Your task to perform on an android device: Search for the best 4K TV Image 0: 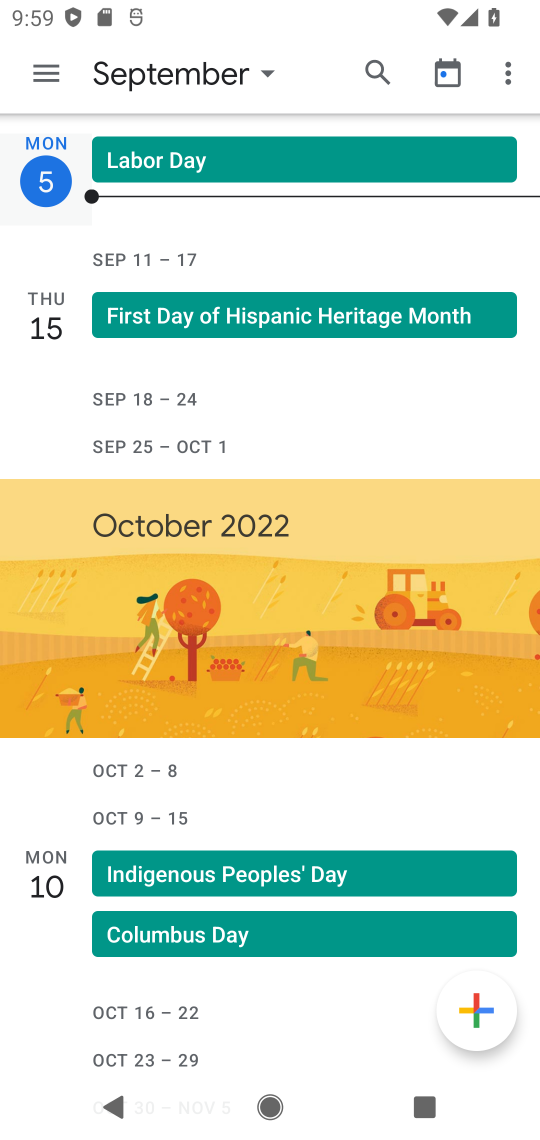
Step 0: press home button
Your task to perform on an android device: Search for the best 4K TV Image 1: 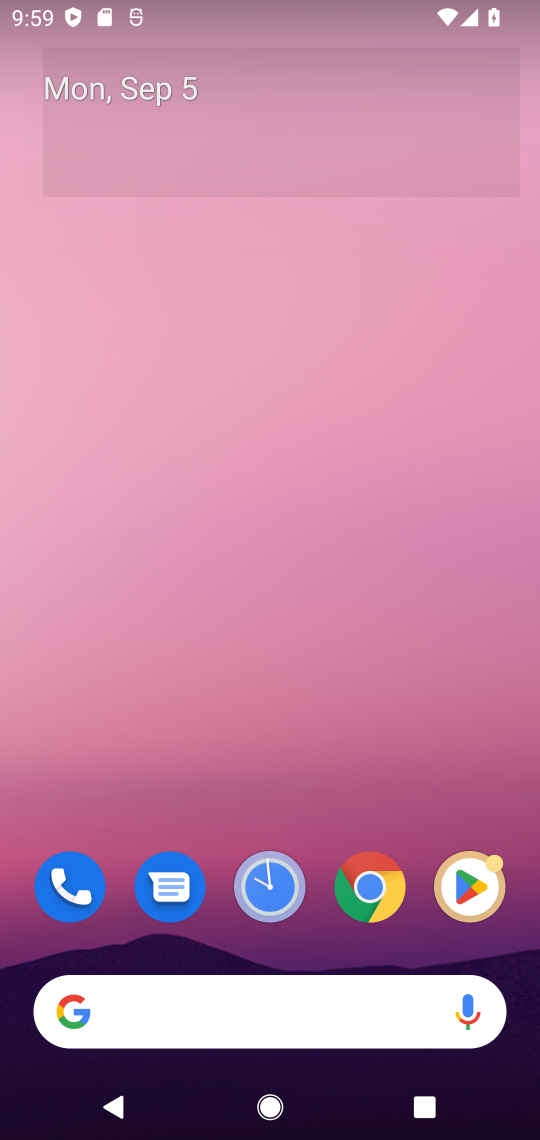
Step 1: click (360, 882)
Your task to perform on an android device: Search for the best 4K TV Image 2: 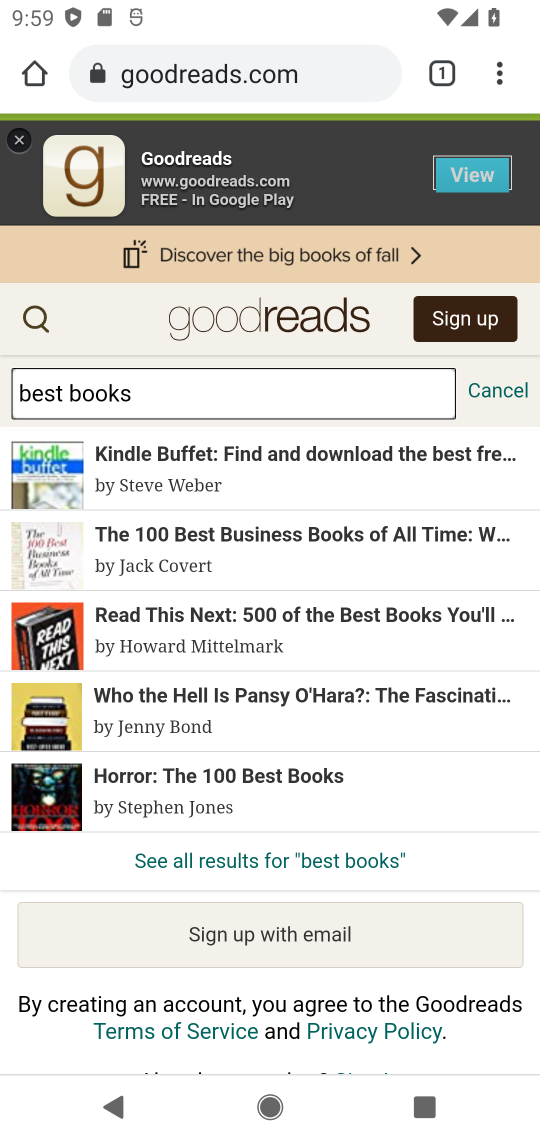
Step 2: click (212, 69)
Your task to perform on an android device: Search for the best 4K TV Image 3: 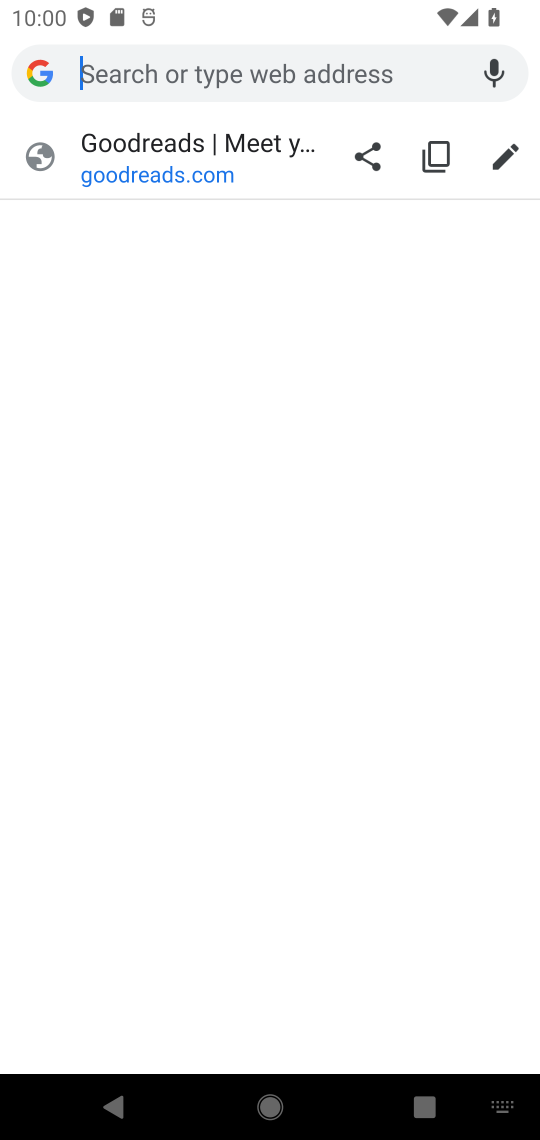
Step 3: type "the best 4K TV"
Your task to perform on an android device: Search for the best 4K TV Image 4: 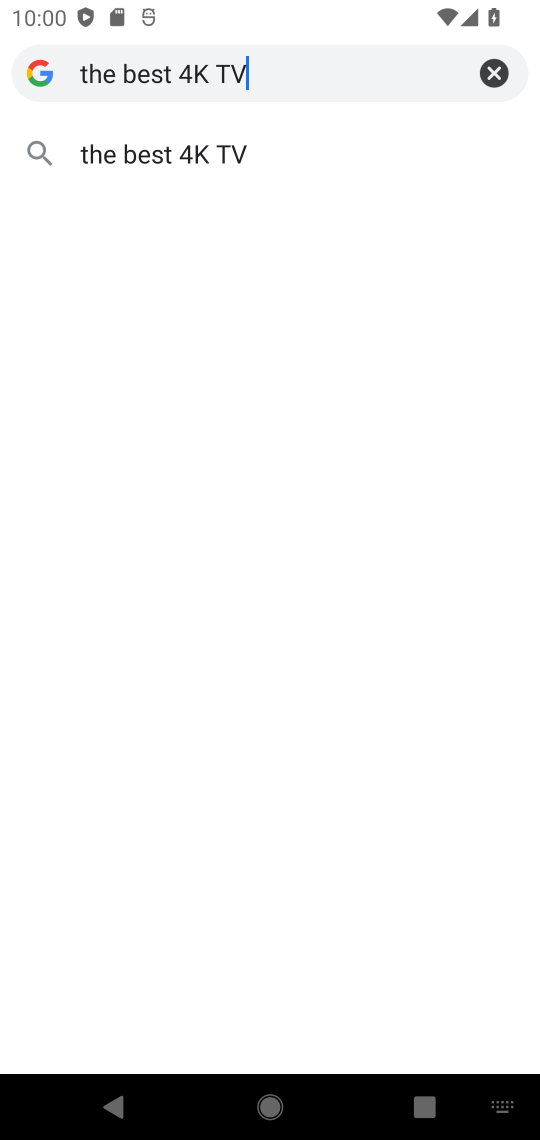
Step 4: click (158, 162)
Your task to perform on an android device: Search for the best 4K TV Image 5: 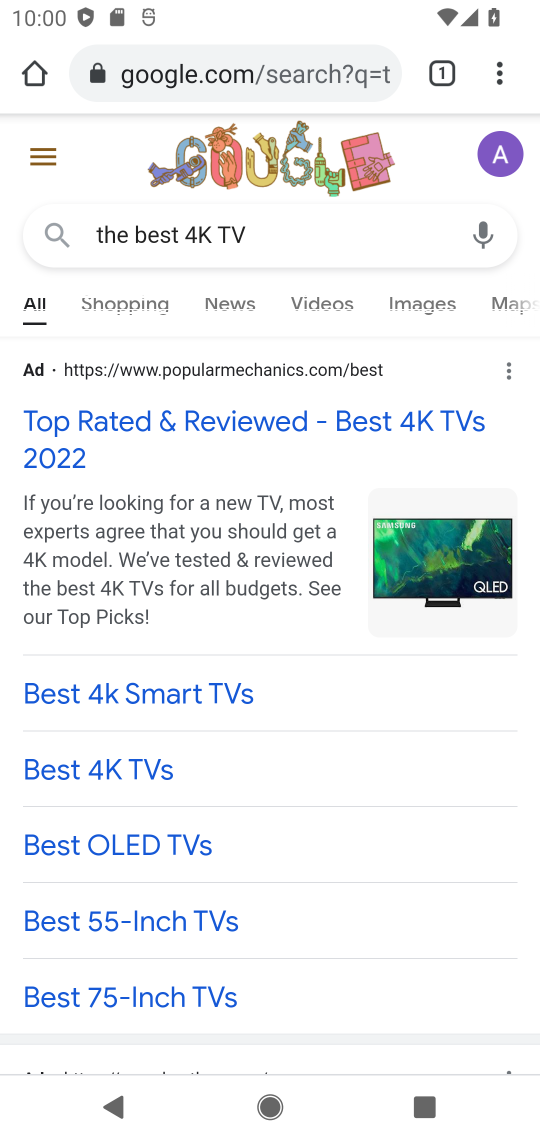
Step 5: task complete